Your task to perform on an android device: turn on the 12-hour format for clock Image 0: 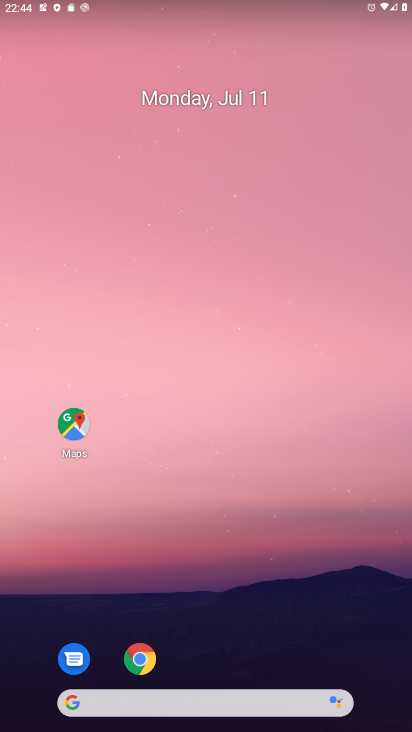
Step 0: drag from (169, 269) to (179, 39)
Your task to perform on an android device: turn on the 12-hour format for clock Image 1: 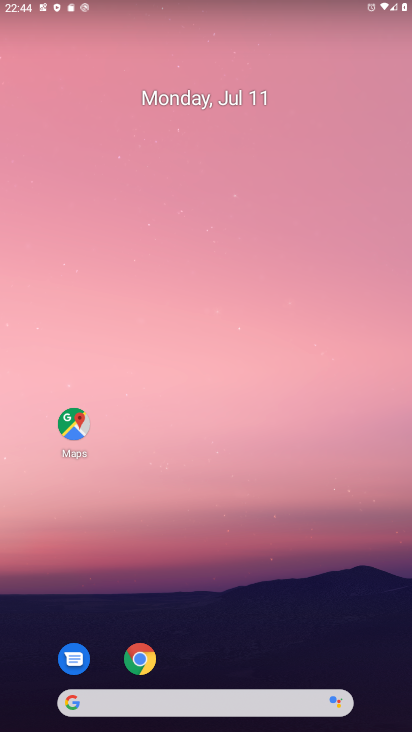
Step 1: drag from (186, 653) to (206, 53)
Your task to perform on an android device: turn on the 12-hour format for clock Image 2: 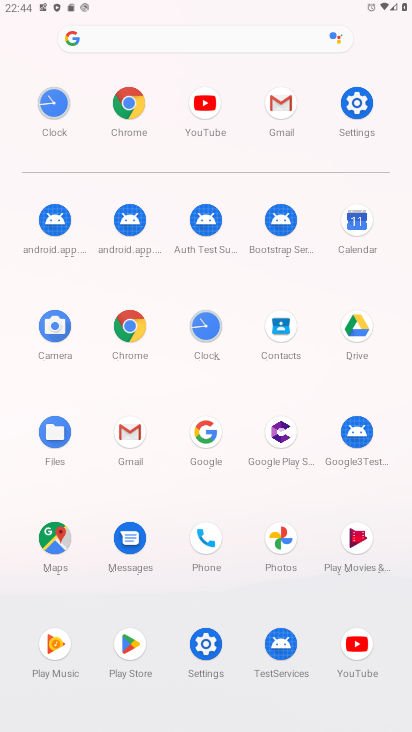
Step 2: click (206, 320)
Your task to perform on an android device: turn on the 12-hour format for clock Image 3: 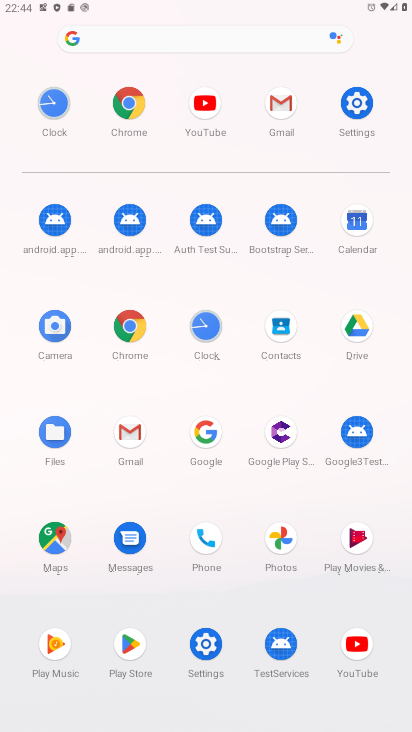
Step 3: click (205, 321)
Your task to perform on an android device: turn on the 12-hour format for clock Image 4: 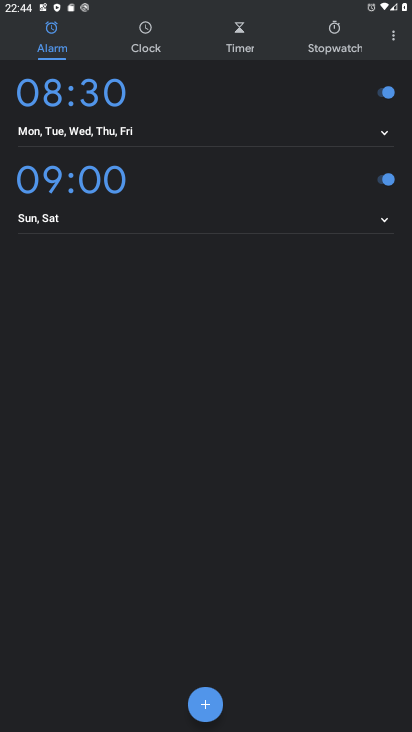
Step 4: click (395, 30)
Your task to perform on an android device: turn on the 12-hour format for clock Image 5: 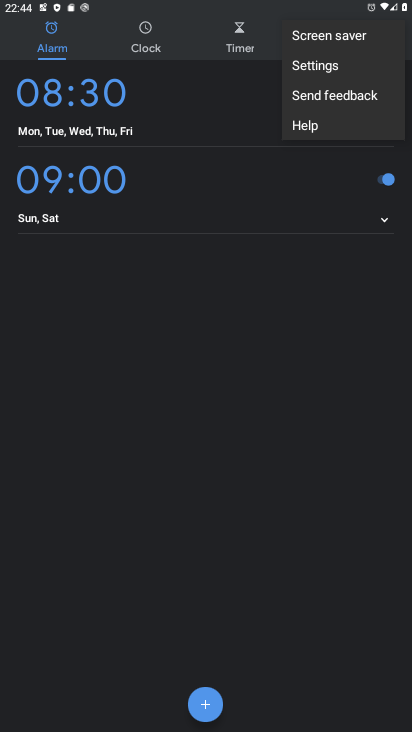
Step 5: click (320, 67)
Your task to perform on an android device: turn on the 12-hour format for clock Image 6: 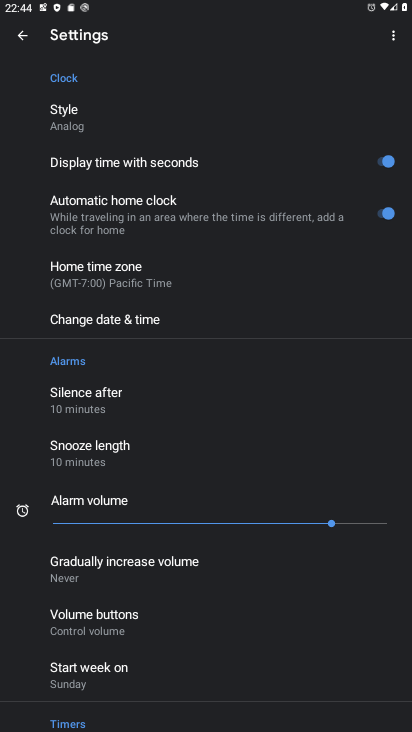
Step 6: drag from (275, 439) to (275, 113)
Your task to perform on an android device: turn on the 12-hour format for clock Image 7: 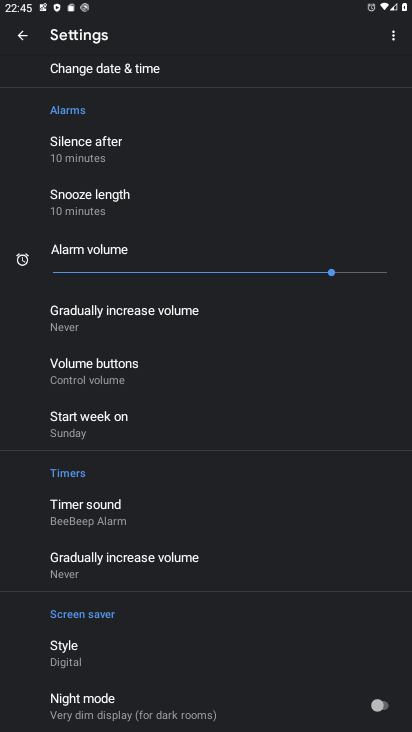
Step 7: drag from (154, 213) to (244, 715)
Your task to perform on an android device: turn on the 12-hour format for clock Image 8: 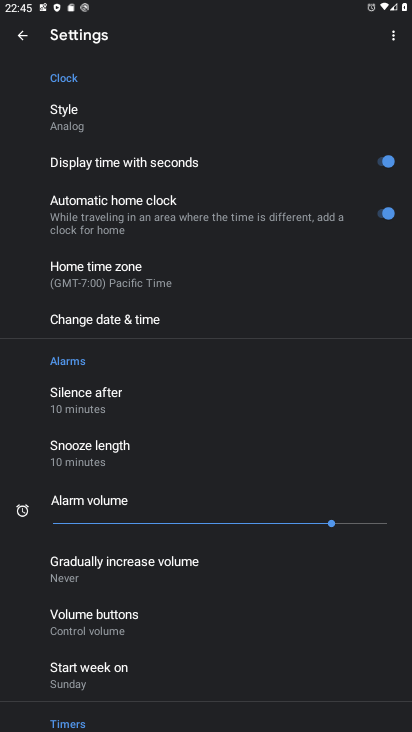
Step 8: click (133, 326)
Your task to perform on an android device: turn on the 12-hour format for clock Image 9: 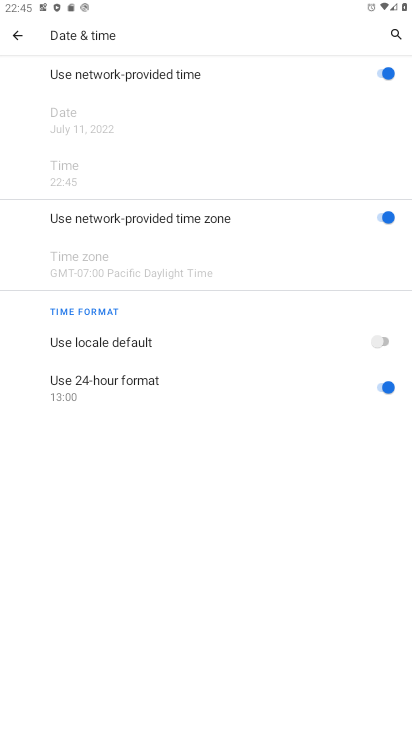
Step 9: drag from (208, 539) to (256, 194)
Your task to perform on an android device: turn on the 12-hour format for clock Image 10: 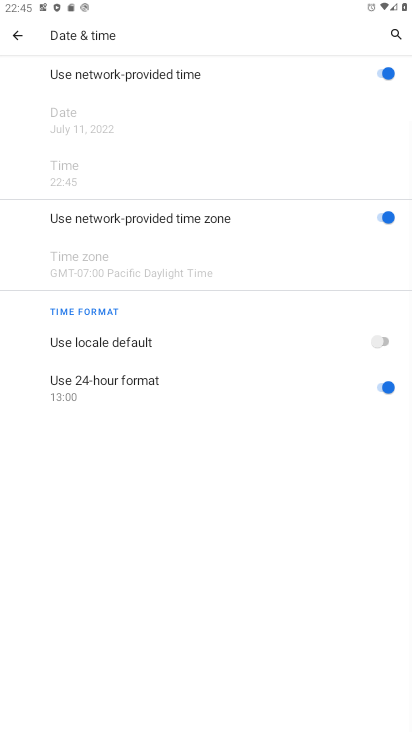
Step 10: drag from (192, 208) to (227, 726)
Your task to perform on an android device: turn on the 12-hour format for clock Image 11: 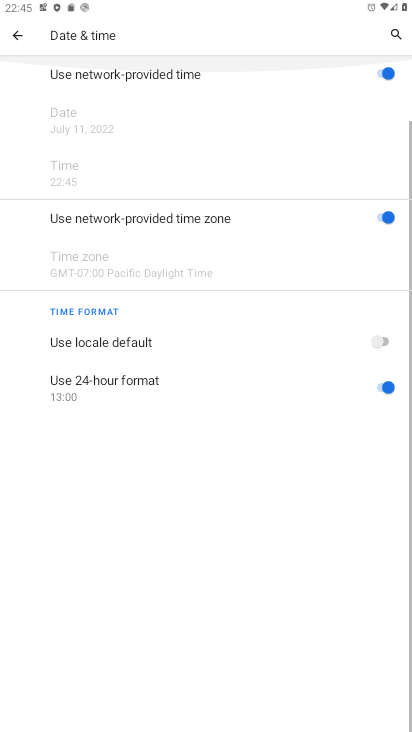
Step 11: drag from (243, 515) to (276, 42)
Your task to perform on an android device: turn on the 12-hour format for clock Image 12: 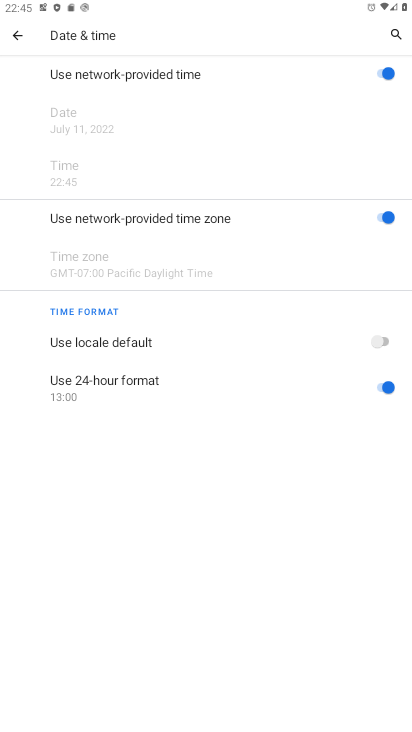
Step 12: drag from (159, 384) to (223, 108)
Your task to perform on an android device: turn on the 12-hour format for clock Image 13: 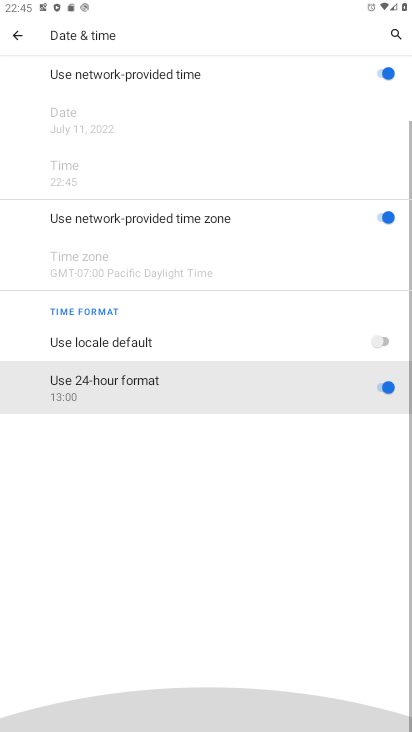
Step 13: drag from (233, 75) to (230, 628)
Your task to perform on an android device: turn on the 12-hour format for clock Image 14: 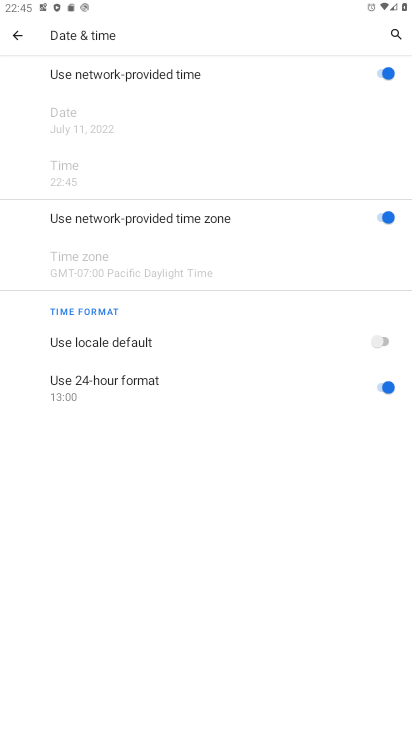
Step 14: click (383, 385)
Your task to perform on an android device: turn on the 12-hour format for clock Image 15: 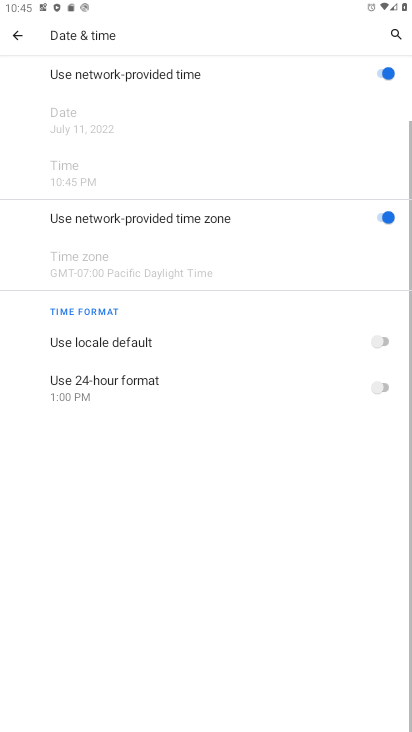
Step 15: task complete